Your task to perform on an android device: change notification settings in the gmail app Image 0: 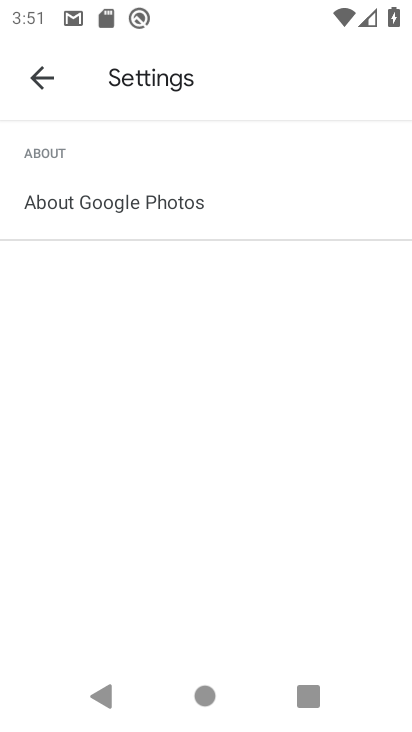
Step 0: press home button
Your task to perform on an android device: change notification settings in the gmail app Image 1: 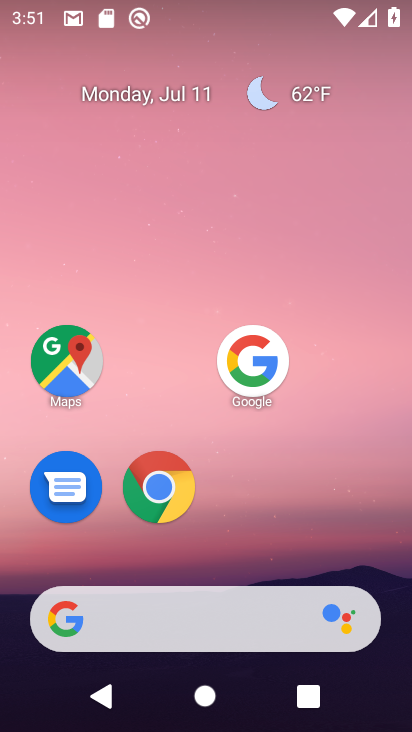
Step 1: drag from (154, 624) to (363, 21)
Your task to perform on an android device: change notification settings in the gmail app Image 2: 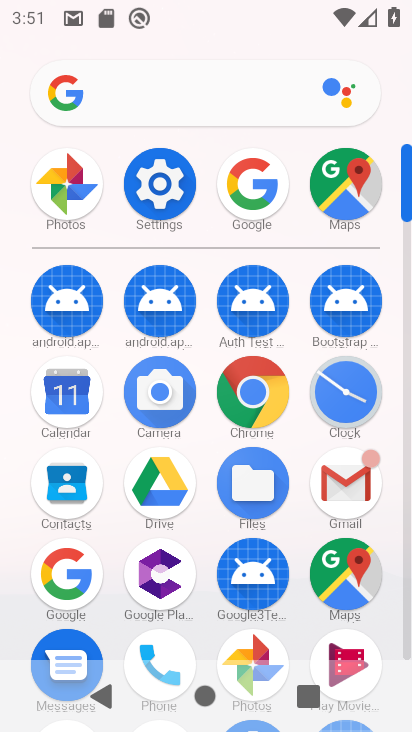
Step 2: click (336, 476)
Your task to perform on an android device: change notification settings in the gmail app Image 3: 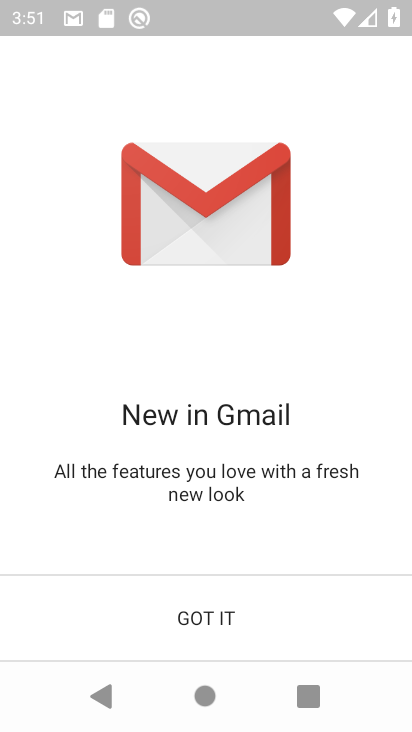
Step 3: click (178, 617)
Your task to perform on an android device: change notification settings in the gmail app Image 4: 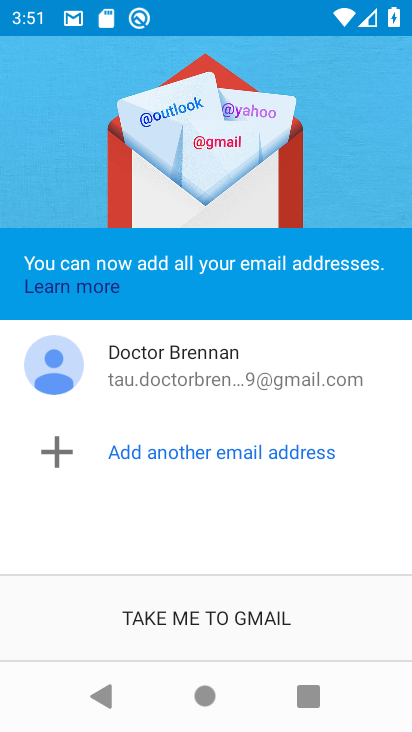
Step 4: click (178, 618)
Your task to perform on an android device: change notification settings in the gmail app Image 5: 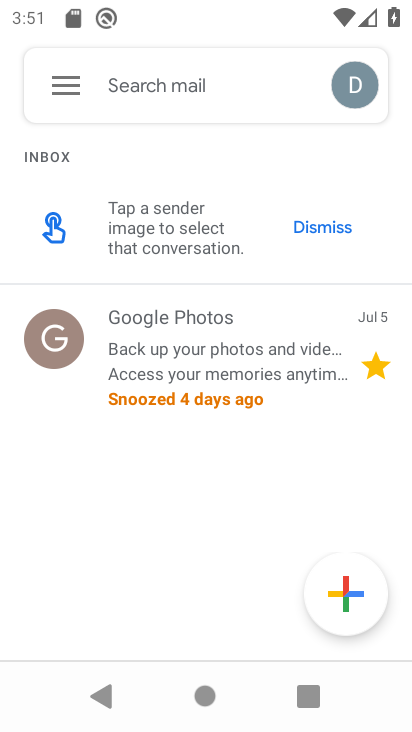
Step 5: click (60, 89)
Your task to perform on an android device: change notification settings in the gmail app Image 6: 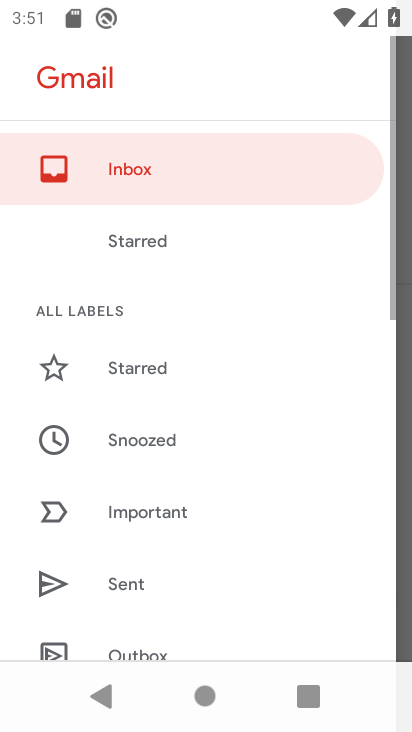
Step 6: drag from (191, 646) to (397, 110)
Your task to perform on an android device: change notification settings in the gmail app Image 7: 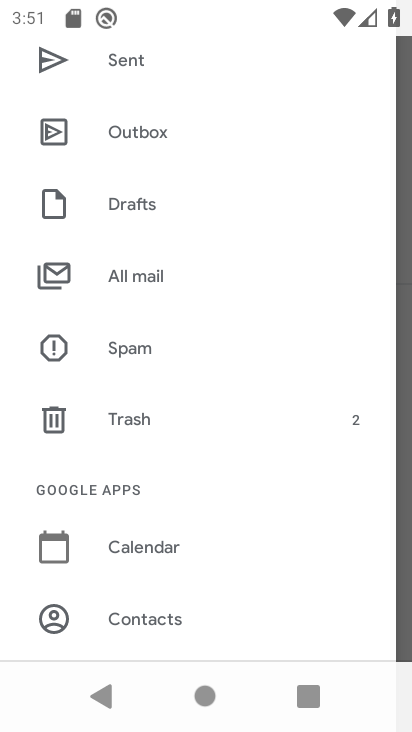
Step 7: drag from (171, 651) to (315, 182)
Your task to perform on an android device: change notification settings in the gmail app Image 8: 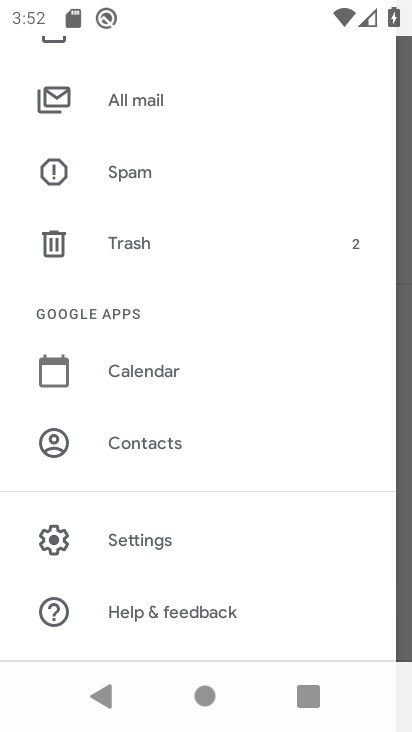
Step 8: click (132, 539)
Your task to perform on an android device: change notification settings in the gmail app Image 9: 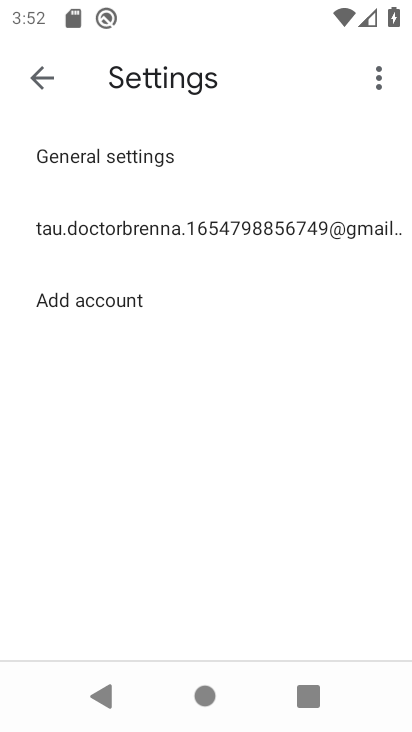
Step 9: click (260, 226)
Your task to perform on an android device: change notification settings in the gmail app Image 10: 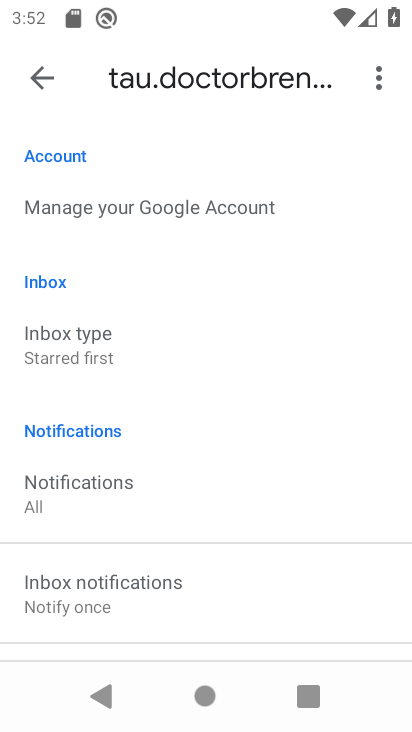
Step 10: drag from (179, 529) to (340, 27)
Your task to perform on an android device: change notification settings in the gmail app Image 11: 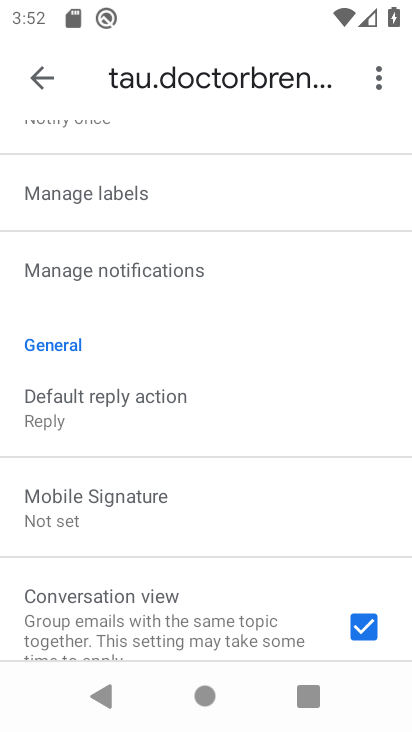
Step 11: drag from (175, 625) to (340, 252)
Your task to perform on an android device: change notification settings in the gmail app Image 12: 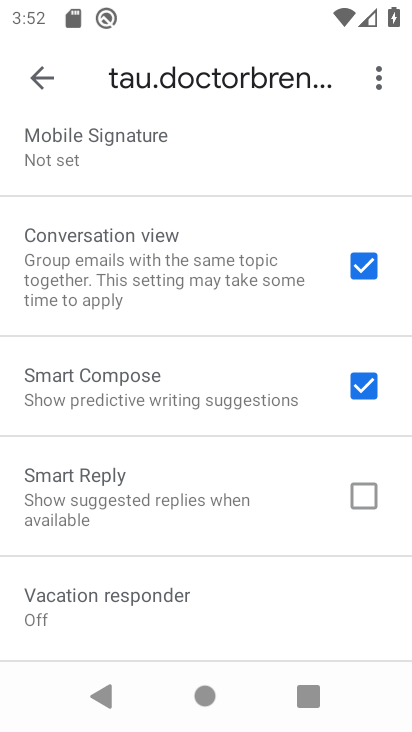
Step 12: drag from (222, 156) to (161, 660)
Your task to perform on an android device: change notification settings in the gmail app Image 13: 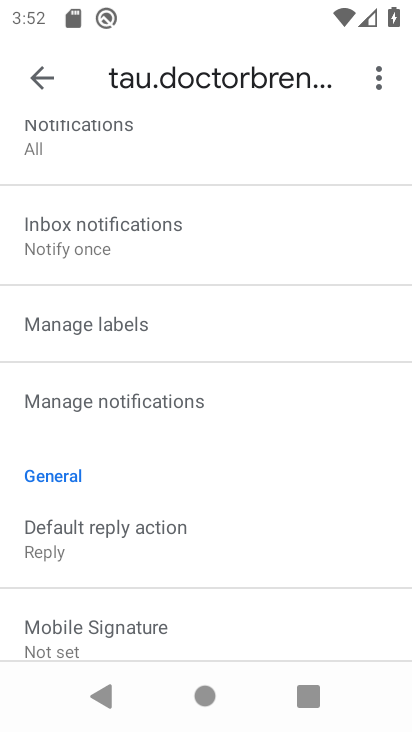
Step 13: drag from (201, 198) to (110, 476)
Your task to perform on an android device: change notification settings in the gmail app Image 14: 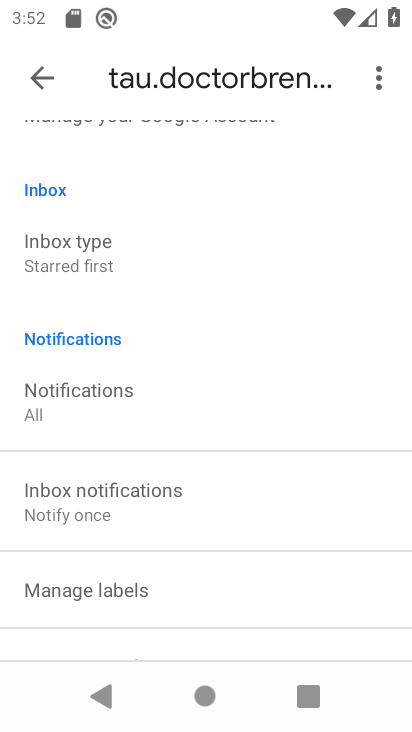
Step 14: click (94, 388)
Your task to perform on an android device: change notification settings in the gmail app Image 15: 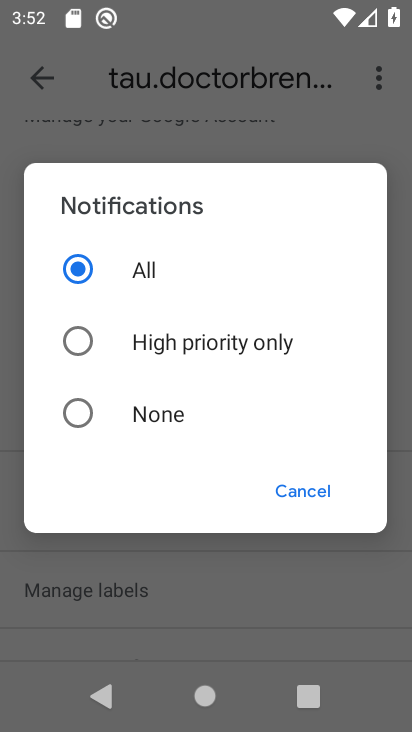
Step 15: click (77, 411)
Your task to perform on an android device: change notification settings in the gmail app Image 16: 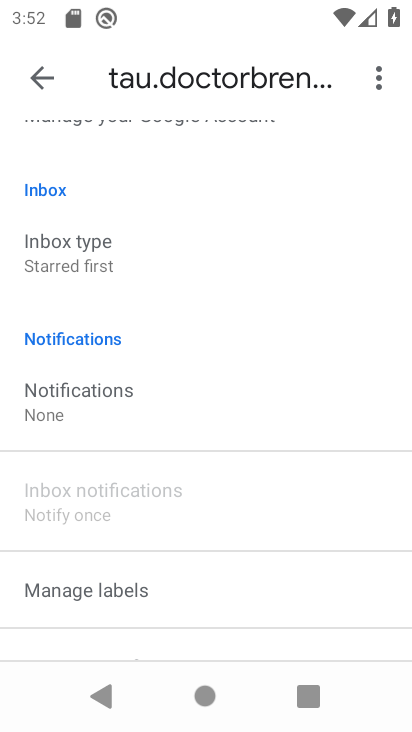
Step 16: task complete